Your task to perform on an android device: turn on translation in the chrome app Image 0: 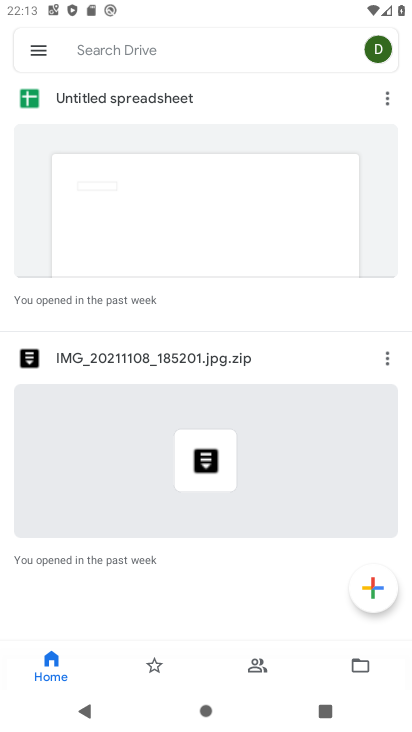
Step 0: press home button
Your task to perform on an android device: turn on translation in the chrome app Image 1: 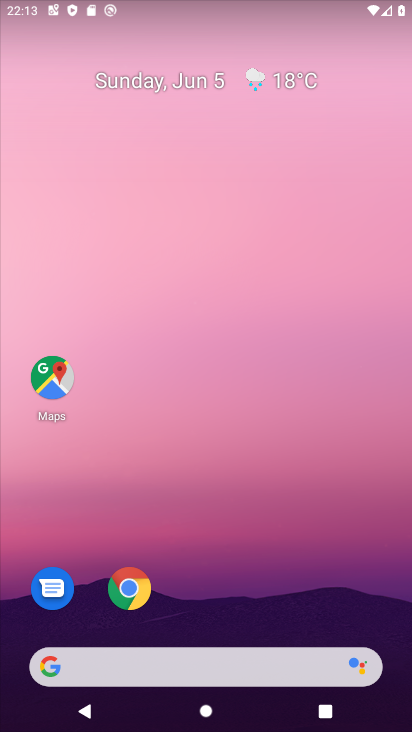
Step 1: drag from (343, 619) to (356, 135)
Your task to perform on an android device: turn on translation in the chrome app Image 2: 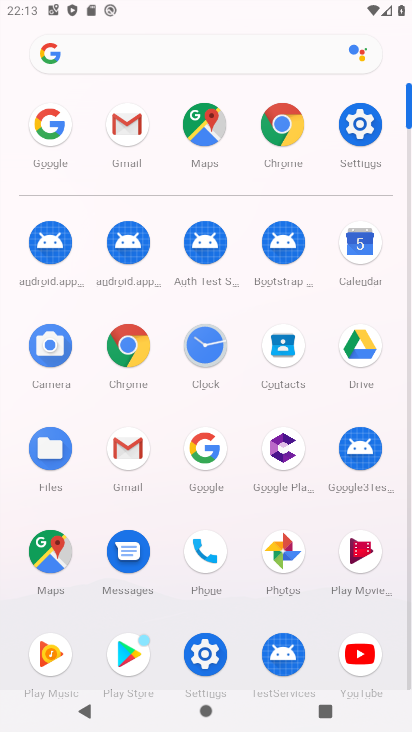
Step 2: click (124, 348)
Your task to perform on an android device: turn on translation in the chrome app Image 3: 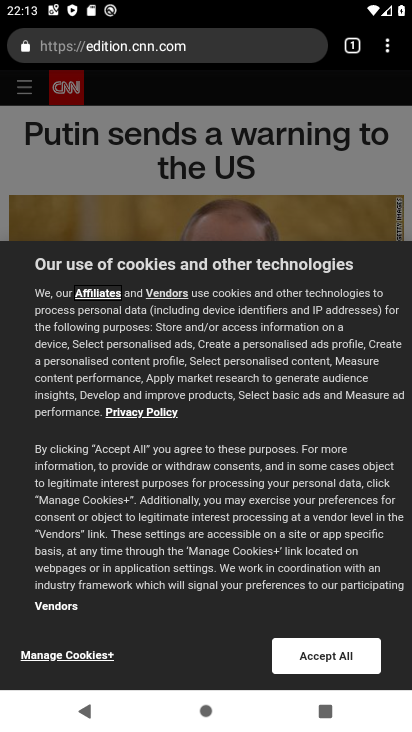
Step 3: click (388, 58)
Your task to perform on an android device: turn on translation in the chrome app Image 4: 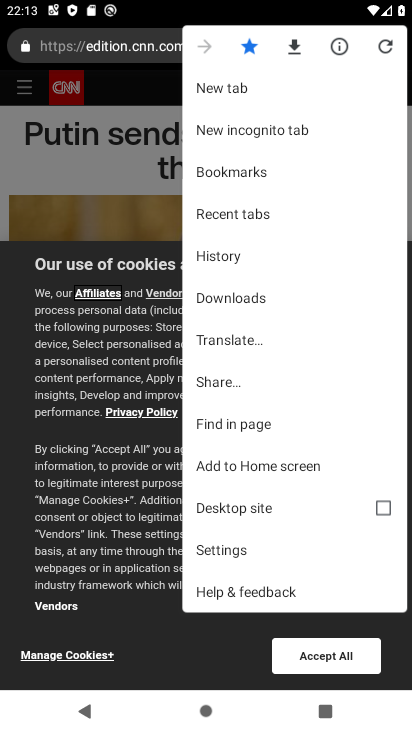
Step 4: click (248, 554)
Your task to perform on an android device: turn on translation in the chrome app Image 5: 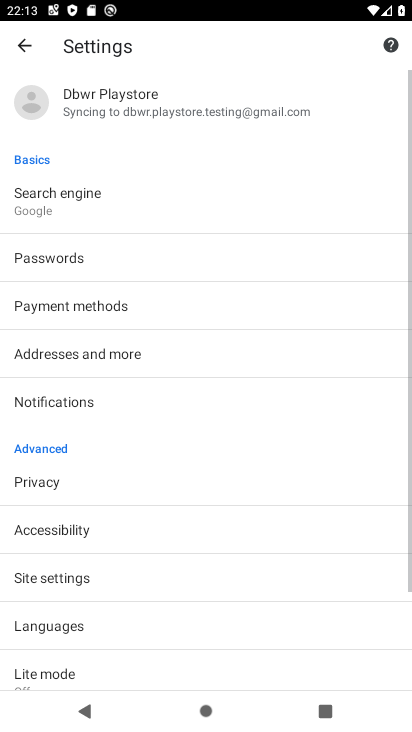
Step 5: drag from (317, 525) to (315, 395)
Your task to perform on an android device: turn on translation in the chrome app Image 6: 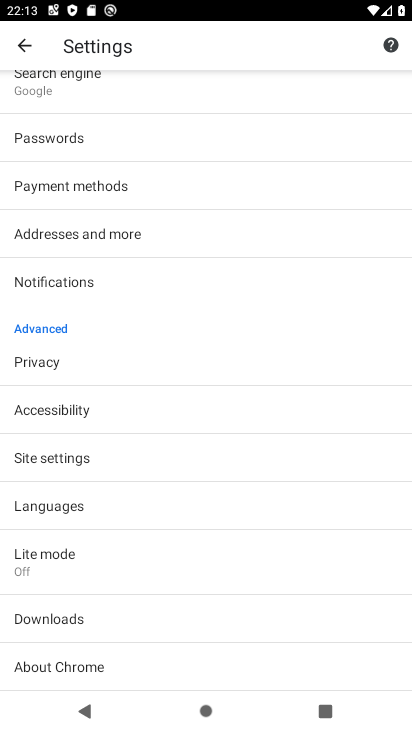
Step 6: drag from (294, 510) to (294, 380)
Your task to perform on an android device: turn on translation in the chrome app Image 7: 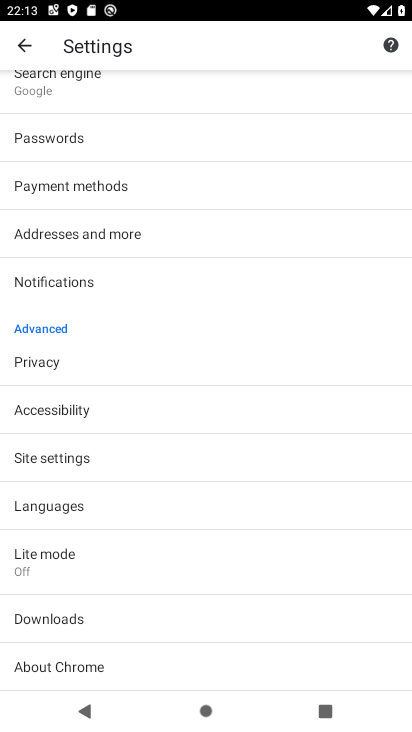
Step 7: click (240, 504)
Your task to perform on an android device: turn on translation in the chrome app Image 8: 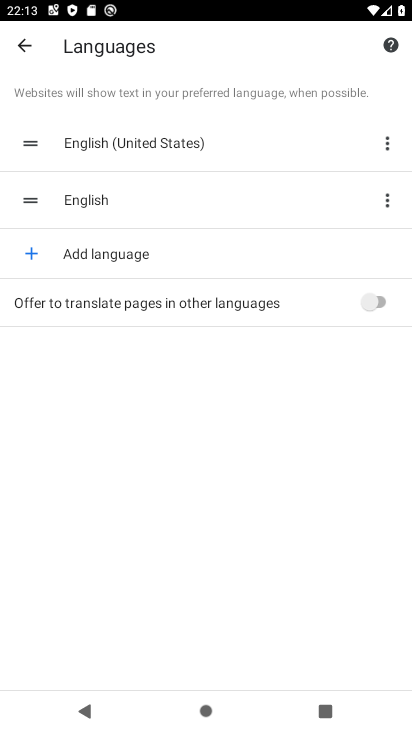
Step 8: click (364, 299)
Your task to perform on an android device: turn on translation in the chrome app Image 9: 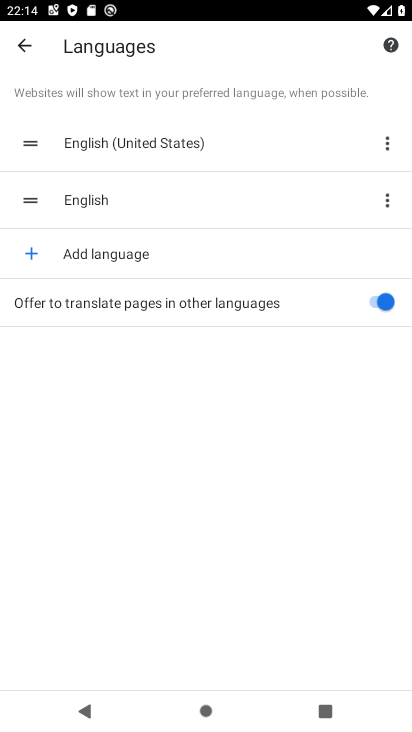
Step 9: task complete